Your task to perform on an android device: open app "Booking.com: Hotels and more" (install if not already installed) and enter user name: "misting@outlook.com" and password: "blandly" Image 0: 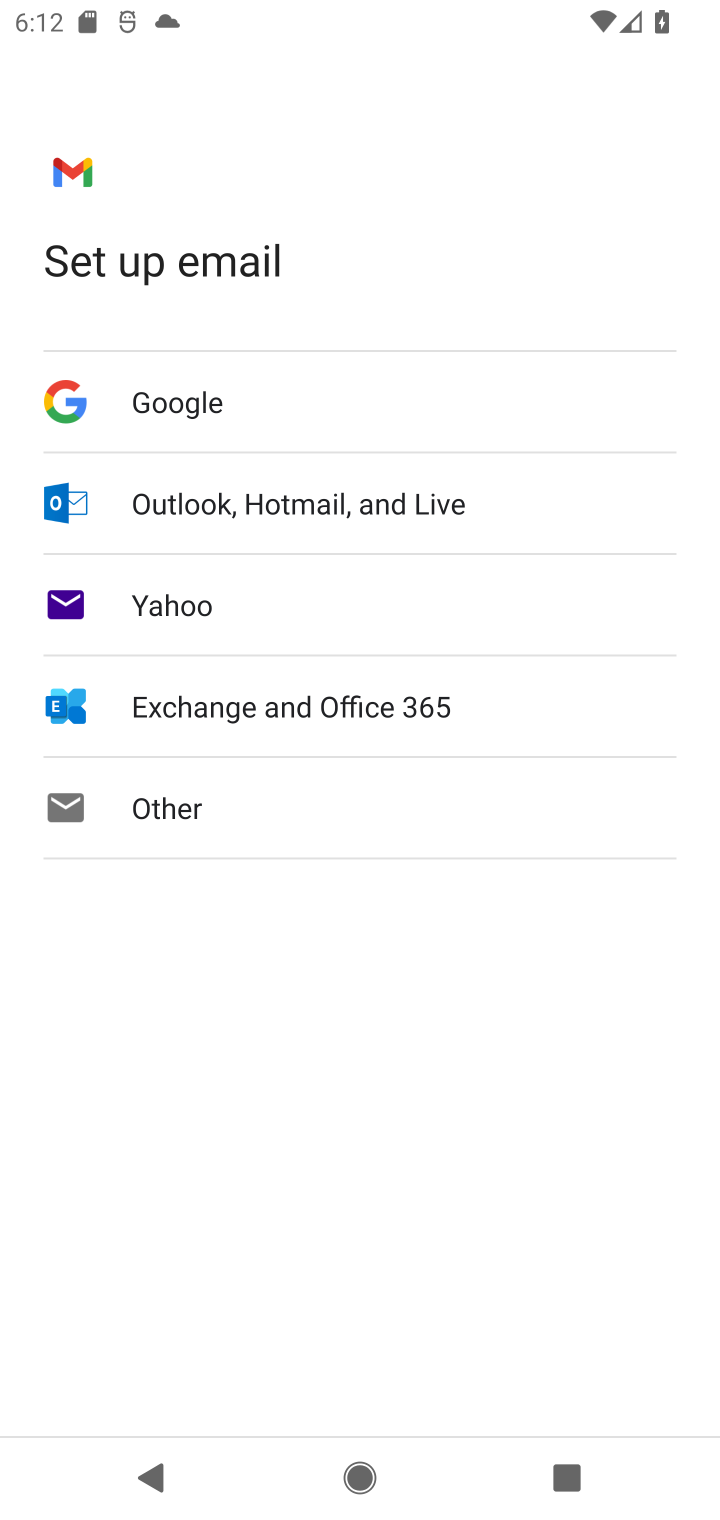
Step 0: press home button
Your task to perform on an android device: open app "Booking.com: Hotels and more" (install if not already installed) and enter user name: "misting@outlook.com" and password: "blandly" Image 1: 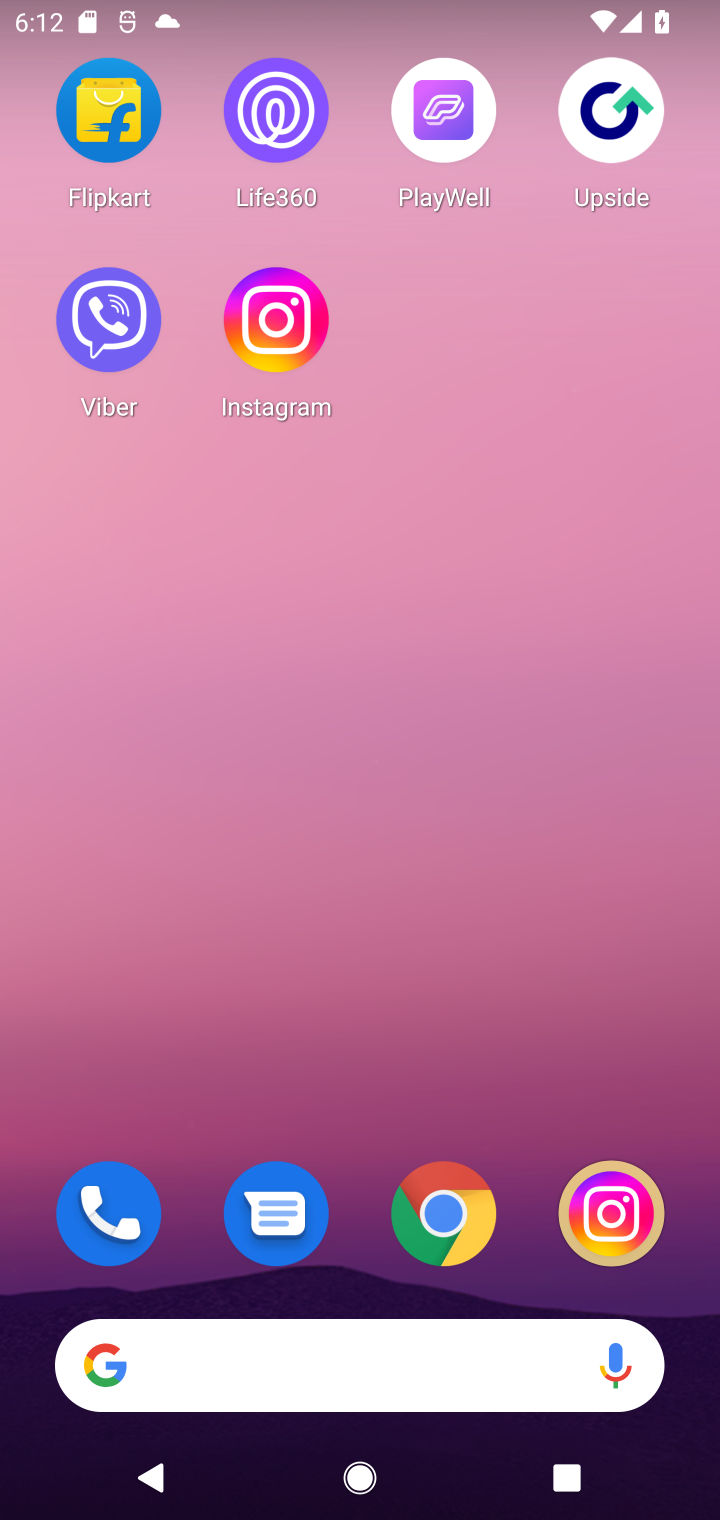
Step 1: drag from (350, 1161) to (286, 157)
Your task to perform on an android device: open app "Booking.com: Hotels and more" (install if not already installed) and enter user name: "misting@outlook.com" and password: "blandly" Image 2: 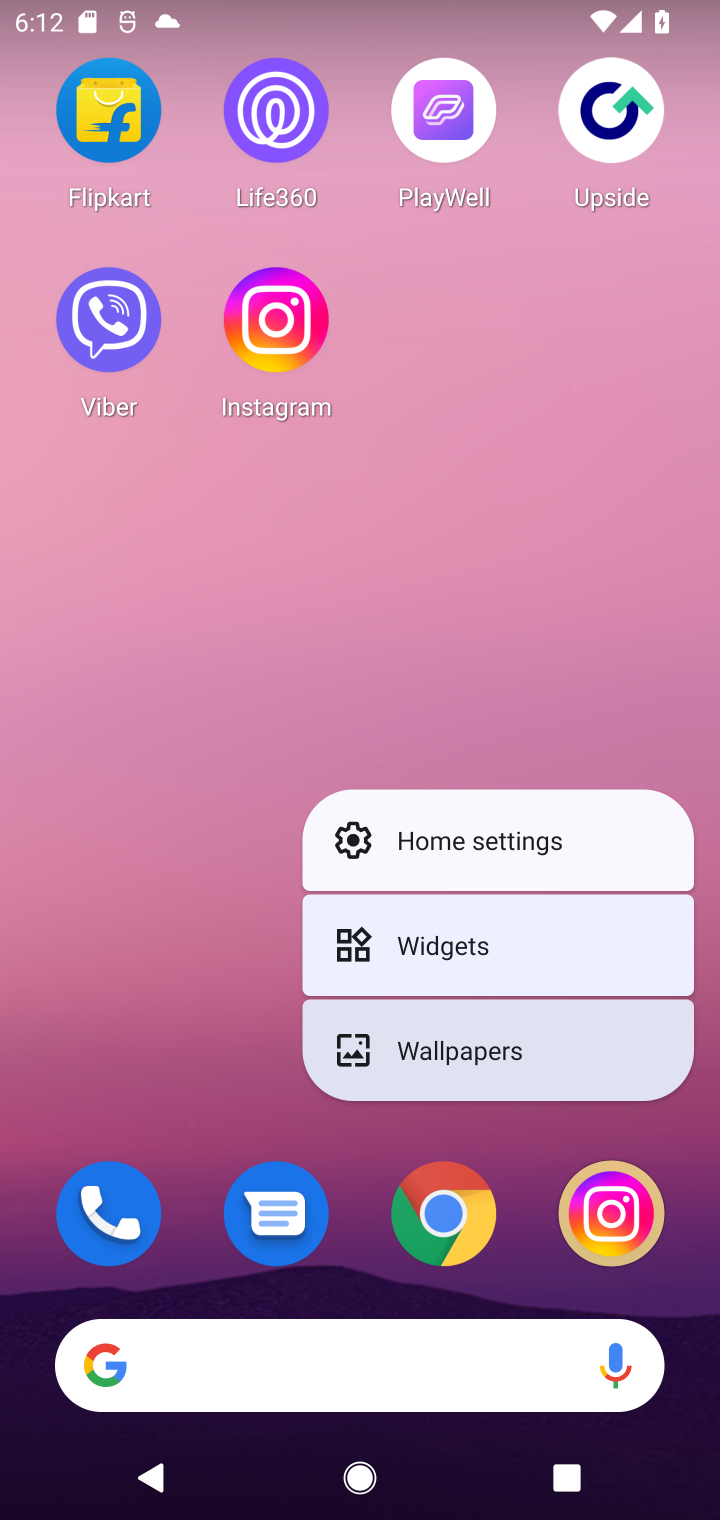
Step 2: click (207, 986)
Your task to perform on an android device: open app "Booking.com: Hotels and more" (install if not already installed) and enter user name: "misting@outlook.com" and password: "blandly" Image 3: 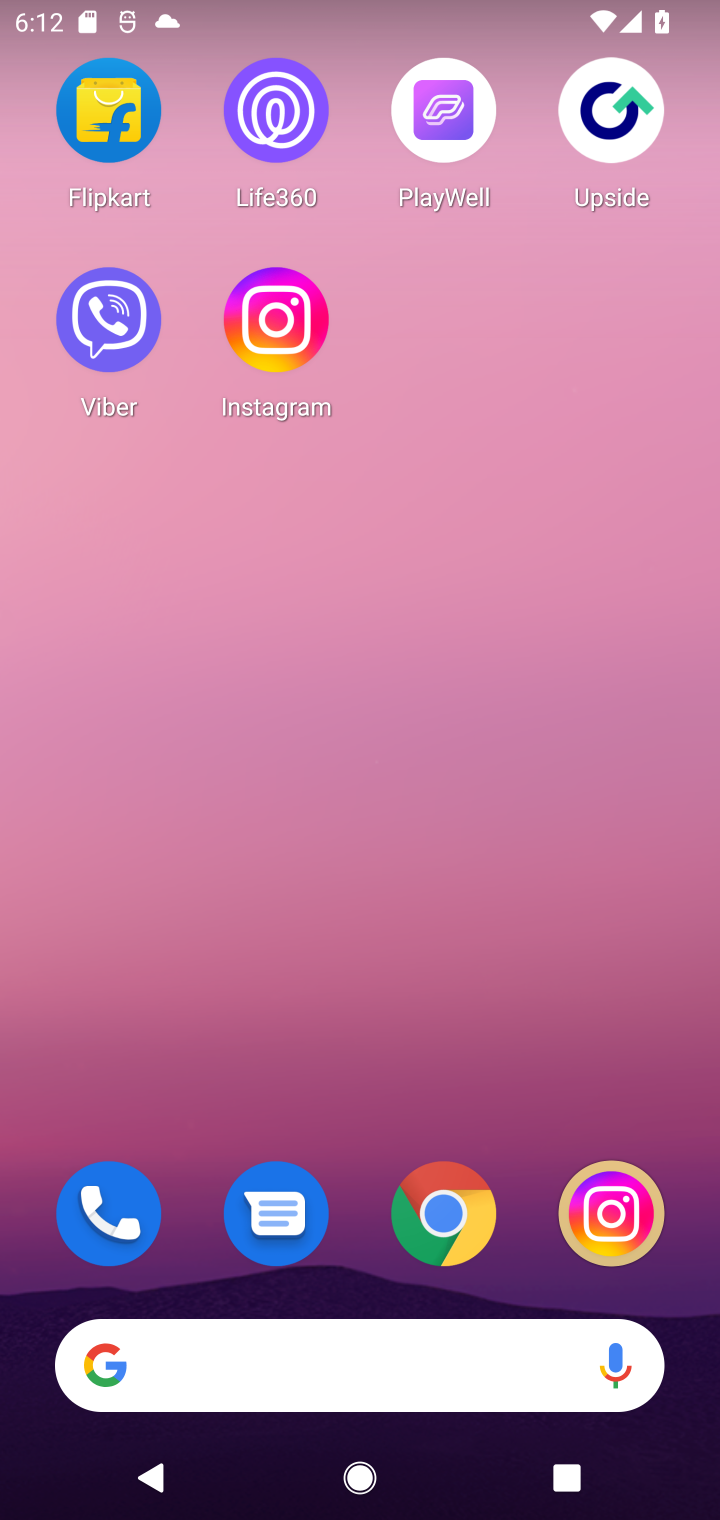
Step 3: drag from (343, 1176) to (313, 245)
Your task to perform on an android device: open app "Booking.com: Hotels and more" (install if not already installed) and enter user name: "misting@outlook.com" and password: "blandly" Image 4: 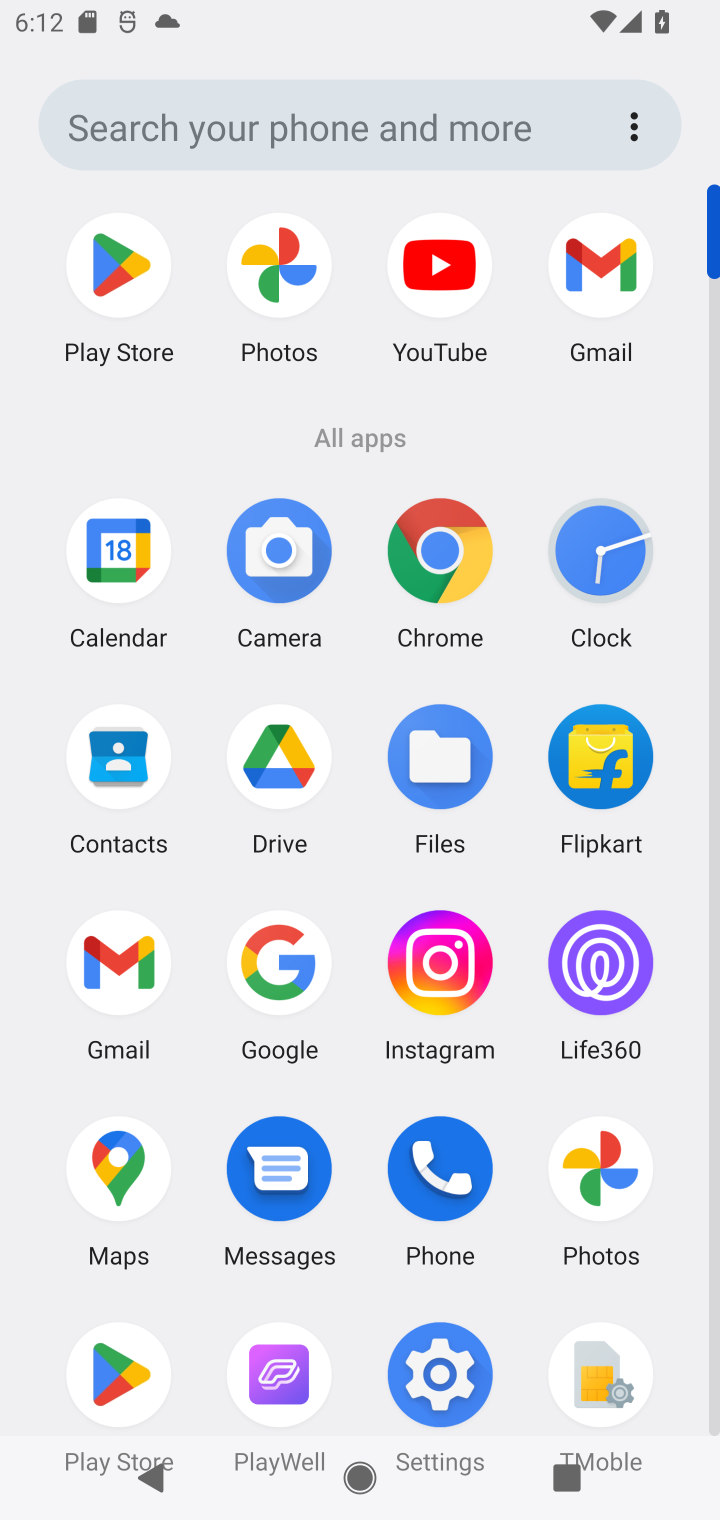
Step 4: click (112, 1370)
Your task to perform on an android device: open app "Booking.com: Hotels and more" (install if not already installed) and enter user name: "misting@outlook.com" and password: "blandly" Image 5: 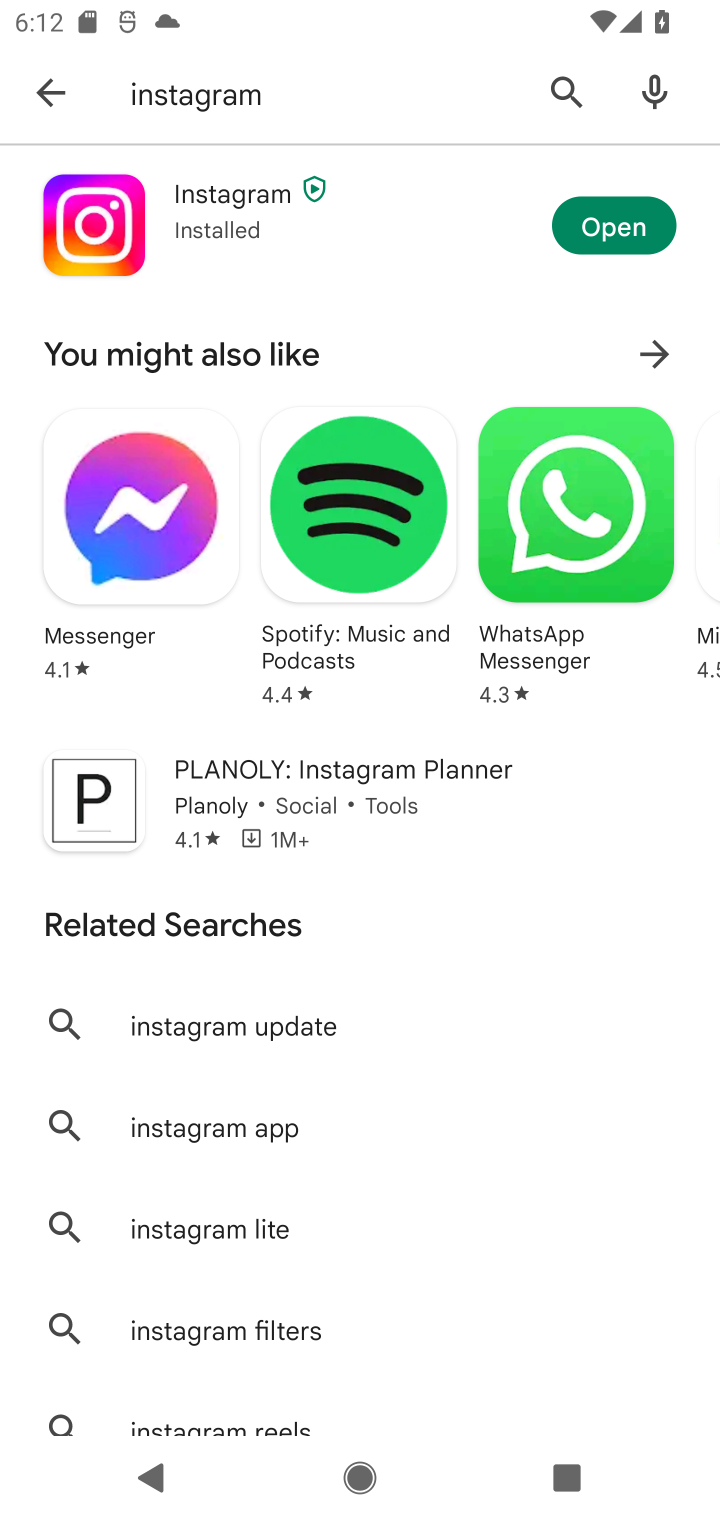
Step 5: click (554, 93)
Your task to perform on an android device: open app "Booking.com: Hotels and more" (install if not already installed) and enter user name: "misting@outlook.com" and password: "blandly" Image 6: 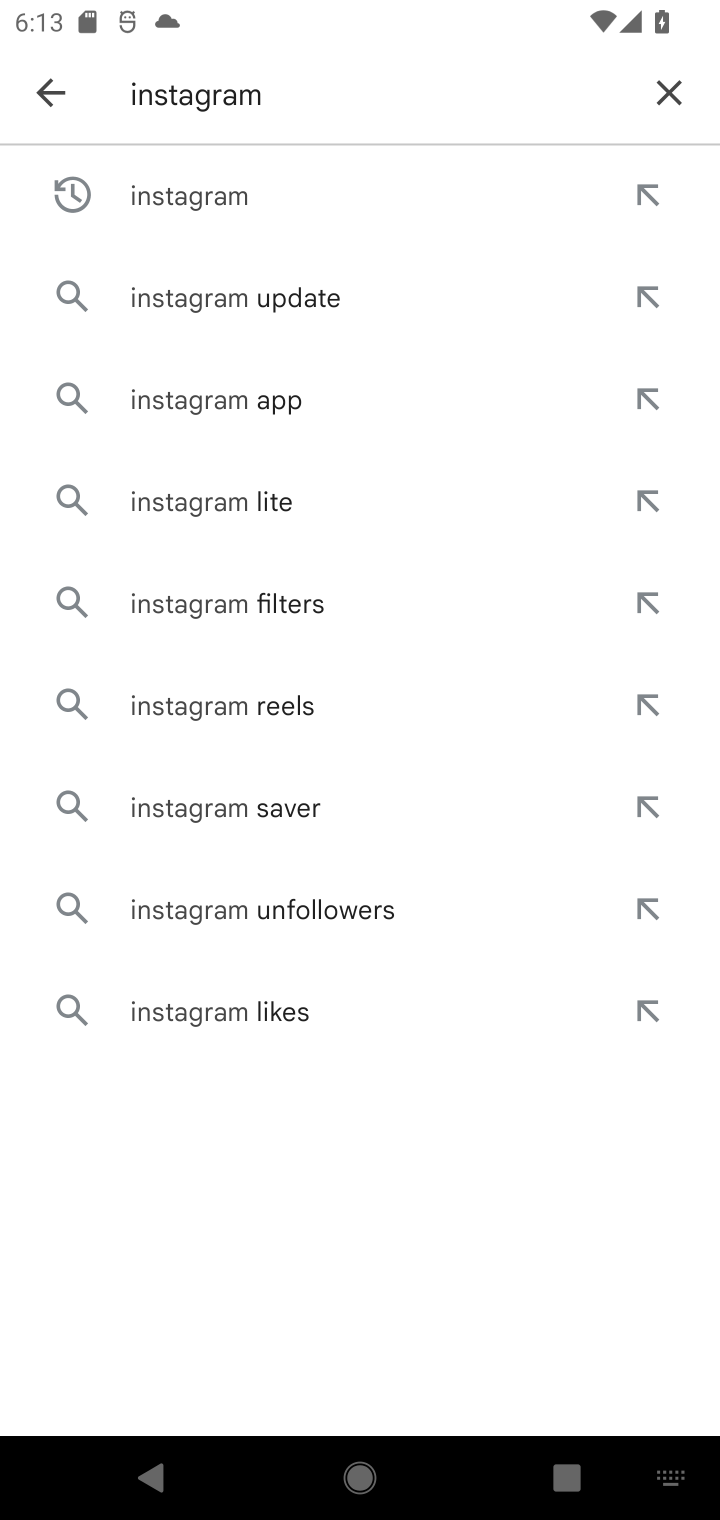
Step 6: click (667, 87)
Your task to perform on an android device: open app "Booking.com: Hotels and more" (install if not already installed) and enter user name: "misting@outlook.com" and password: "blandly" Image 7: 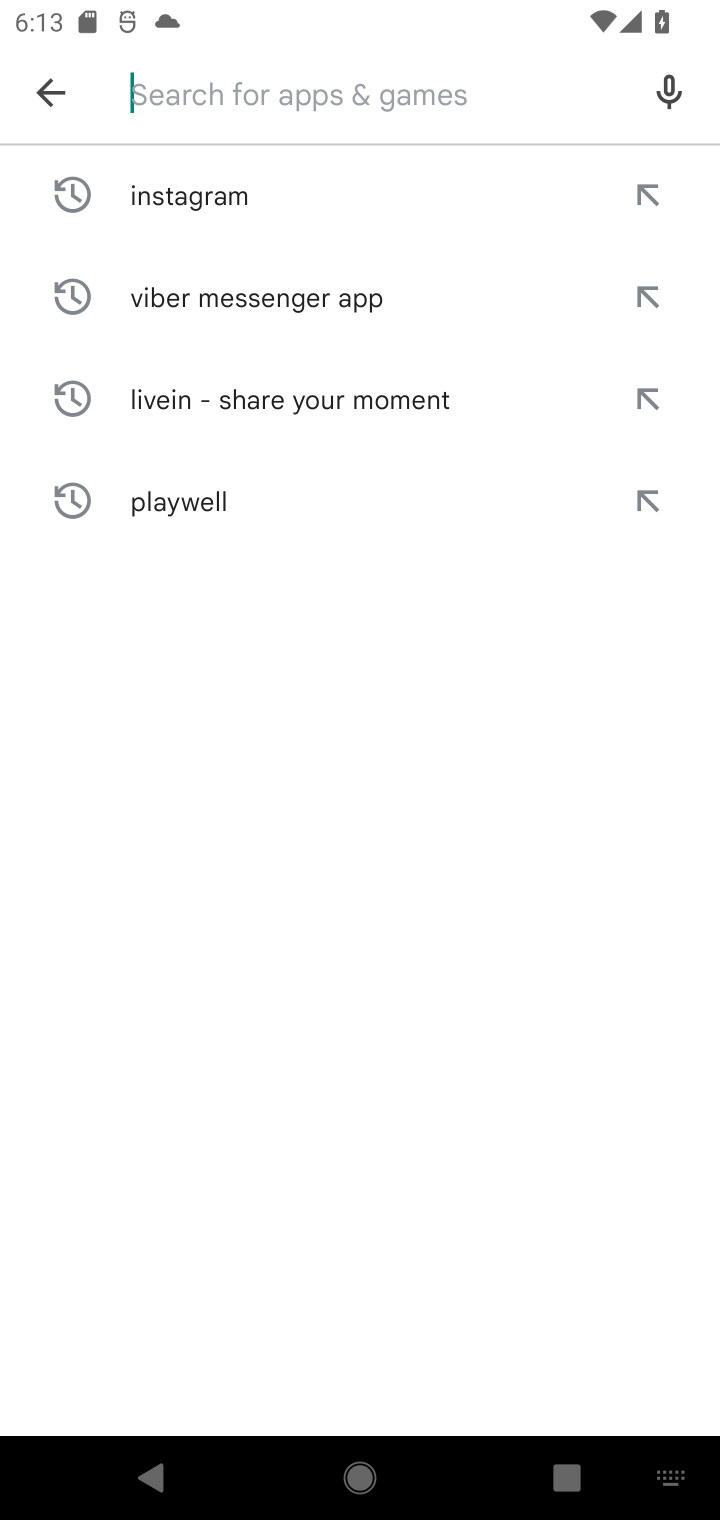
Step 7: type "Booking.com: Hotels and more"
Your task to perform on an android device: open app "Booking.com: Hotels and more" (install if not already installed) and enter user name: "misting@outlook.com" and password: "blandly" Image 8: 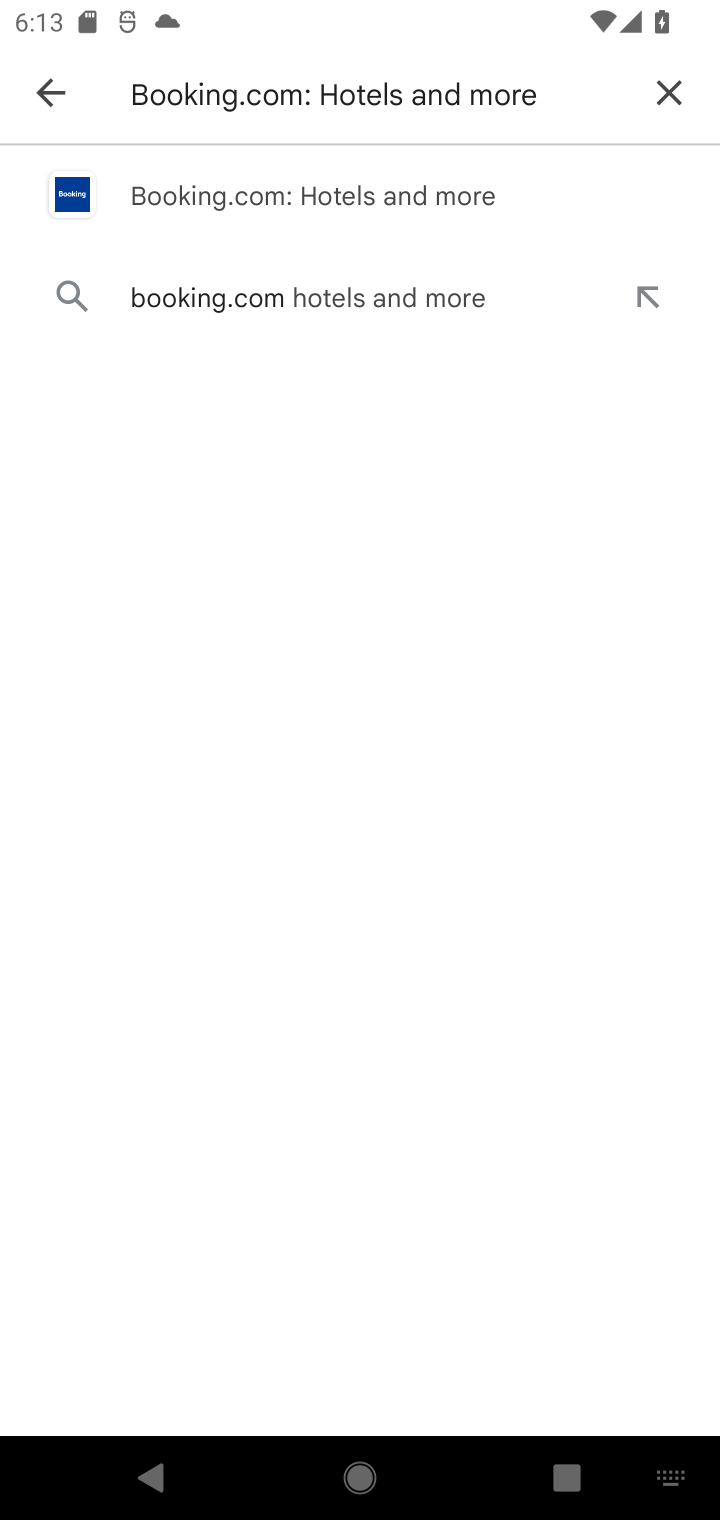
Step 8: click (158, 190)
Your task to perform on an android device: open app "Booking.com: Hotels and more" (install if not already installed) and enter user name: "misting@outlook.com" and password: "blandly" Image 9: 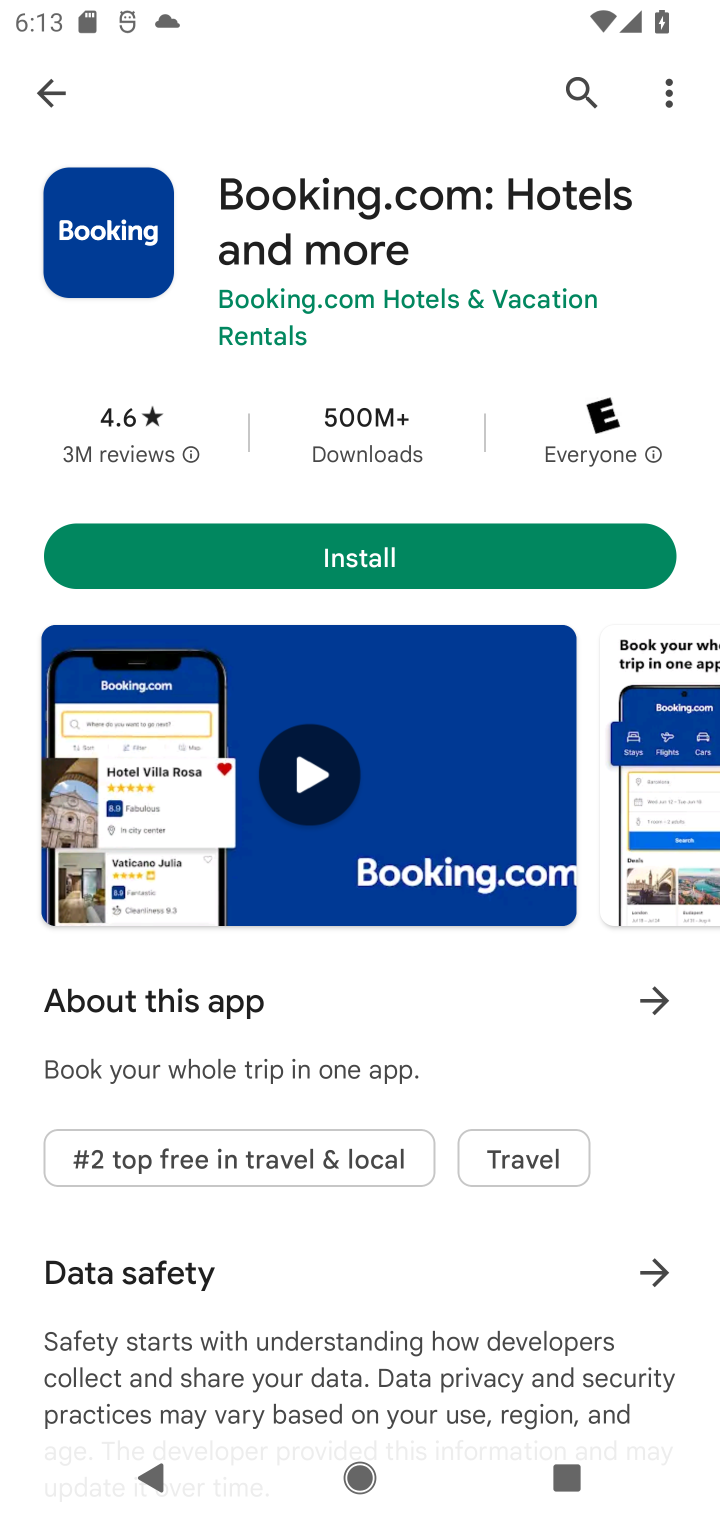
Step 9: click (346, 556)
Your task to perform on an android device: open app "Booking.com: Hotels and more" (install if not already installed) and enter user name: "misting@outlook.com" and password: "blandly" Image 10: 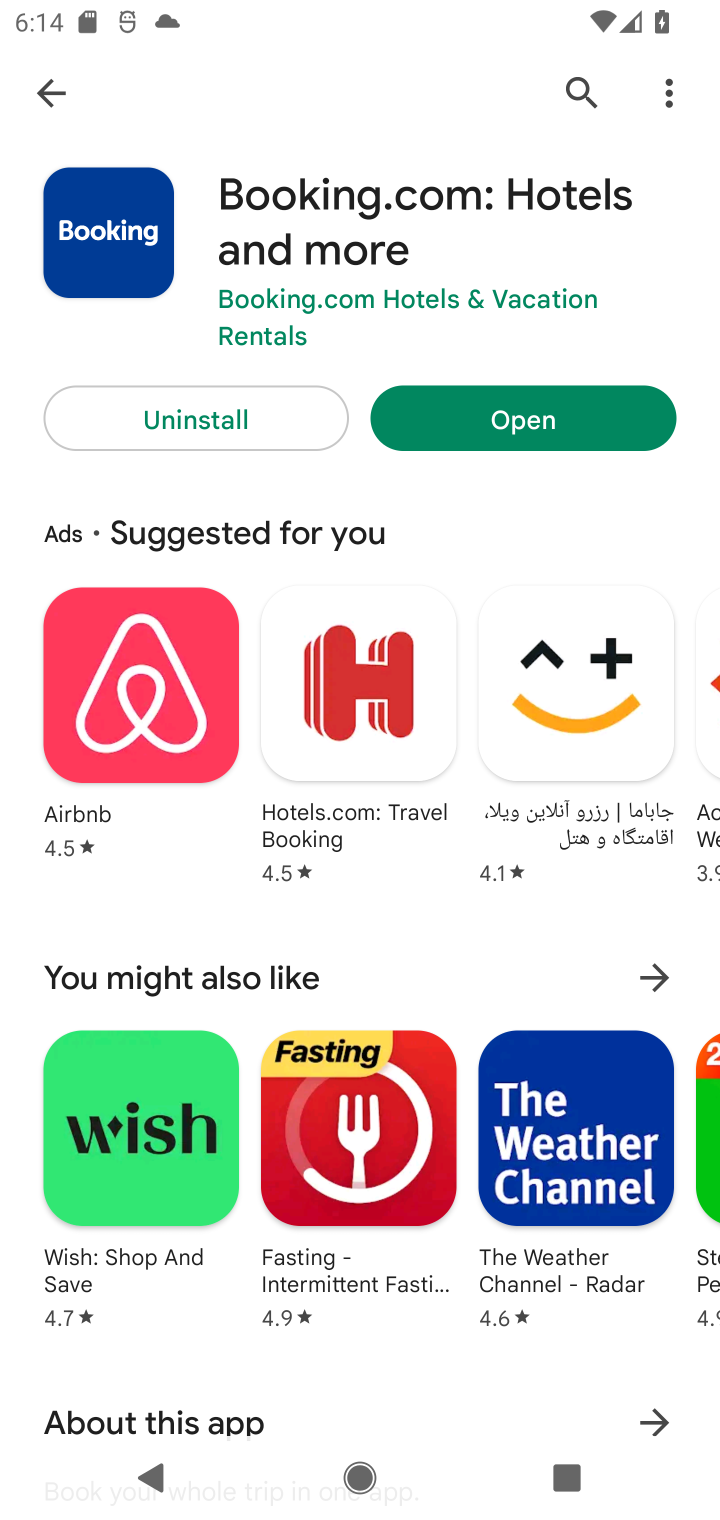
Step 10: click (528, 423)
Your task to perform on an android device: open app "Booking.com: Hotels and more" (install if not already installed) and enter user name: "misting@outlook.com" and password: "blandly" Image 11: 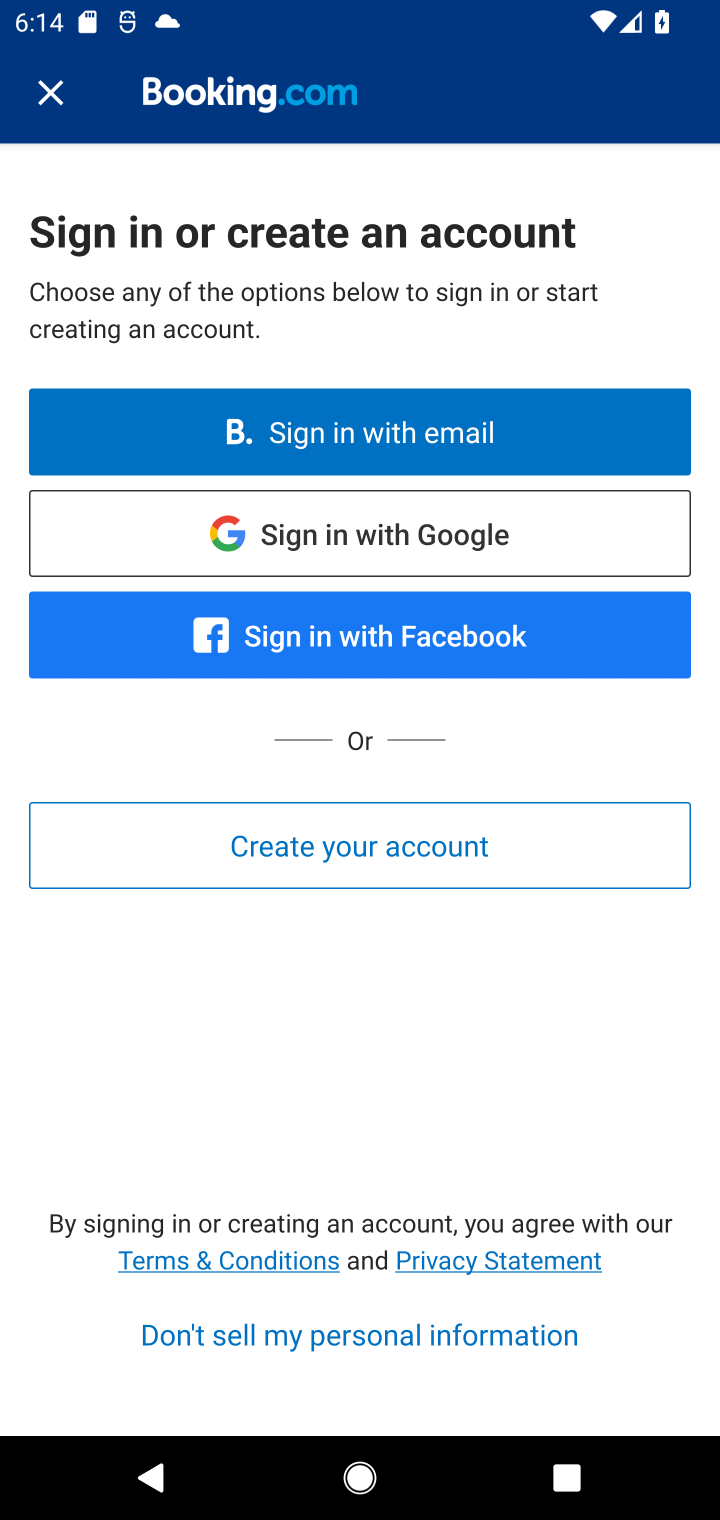
Step 11: click (342, 435)
Your task to perform on an android device: open app "Booking.com: Hotels and more" (install if not already installed) and enter user name: "misting@outlook.com" and password: "blandly" Image 12: 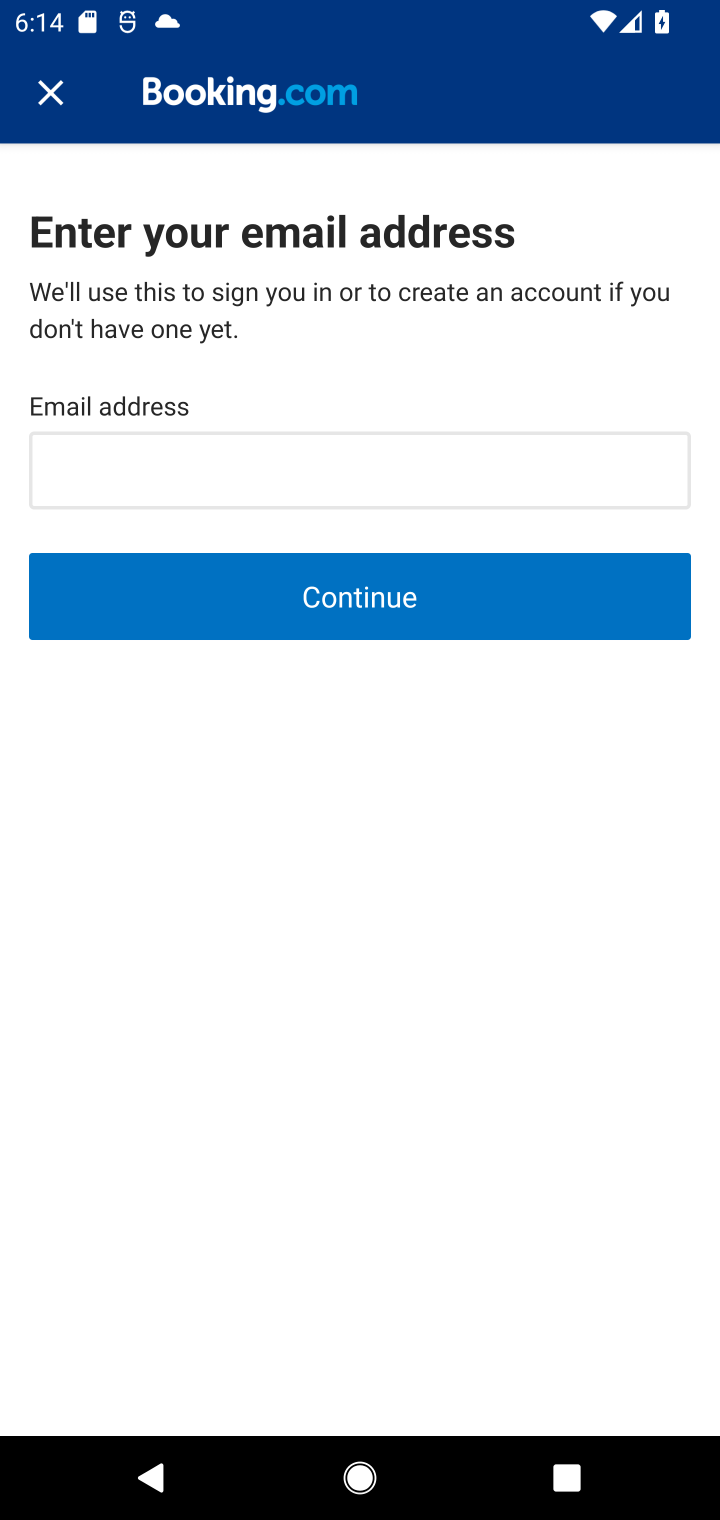
Step 12: click (82, 474)
Your task to perform on an android device: open app "Booking.com: Hotels and more" (install if not already installed) and enter user name: "misting@outlook.com" and password: "blandly" Image 13: 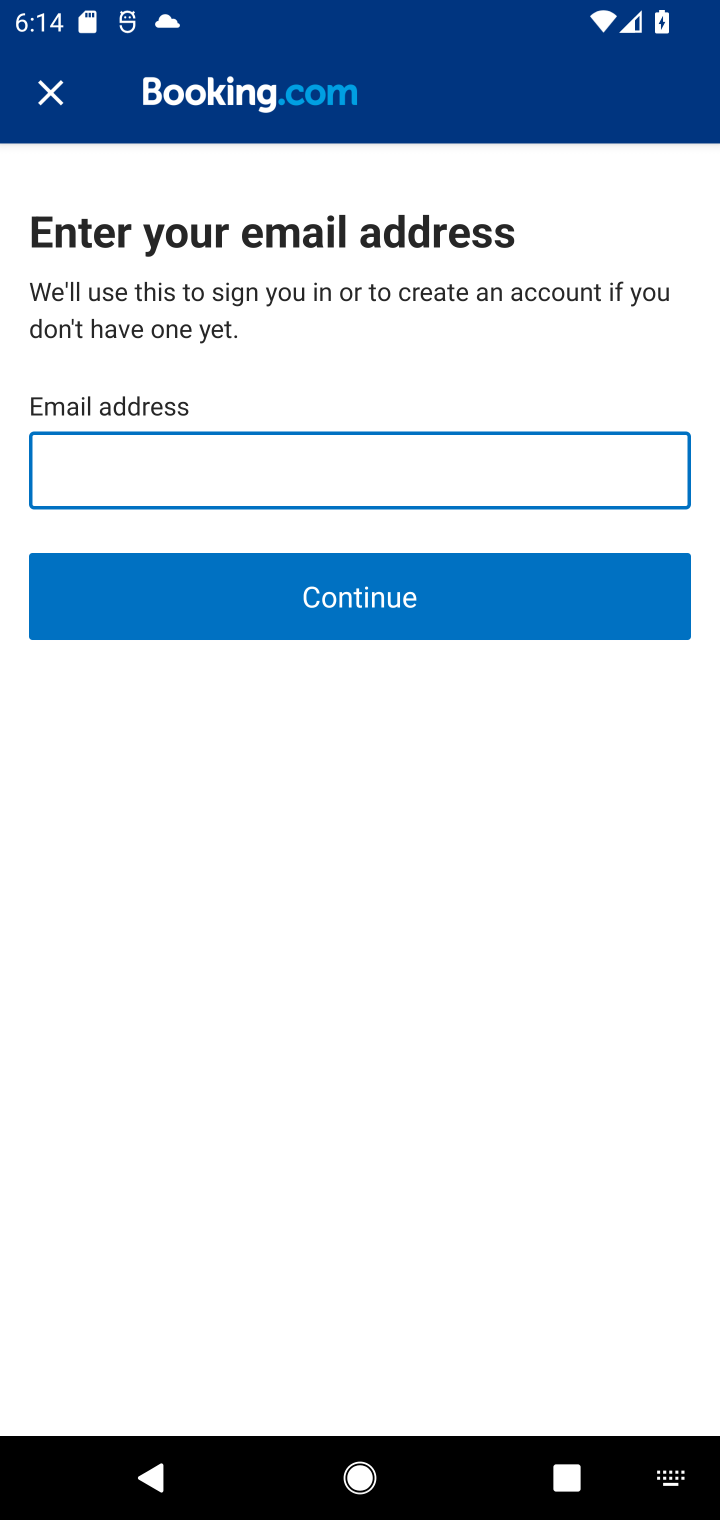
Step 13: type "misting@outlook.com"
Your task to perform on an android device: open app "Booking.com: Hotels and more" (install if not already installed) and enter user name: "misting@outlook.com" and password: "blandly" Image 14: 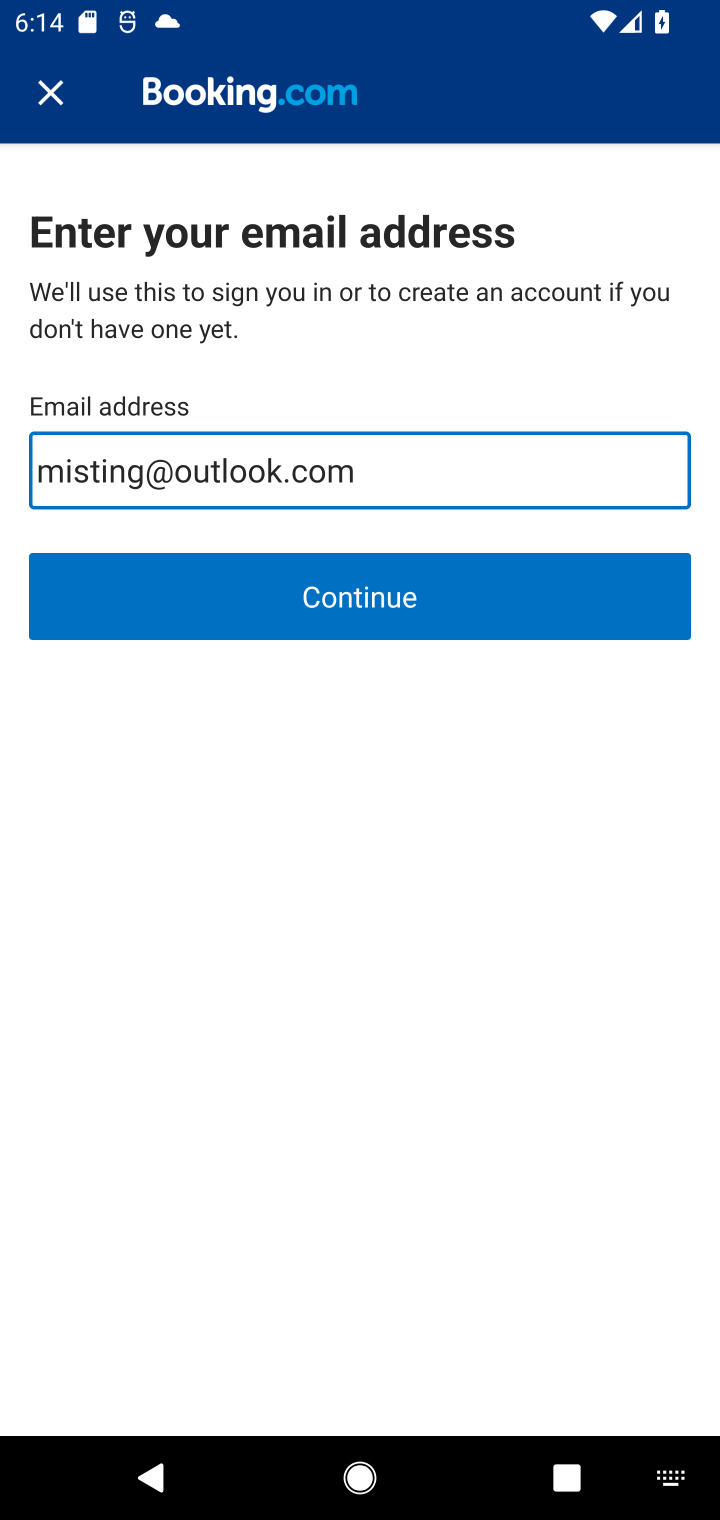
Step 14: click (360, 603)
Your task to perform on an android device: open app "Booking.com: Hotels and more" (install if not already installed) and enter user name: "misting@outlook.com" and password: "blandly" Image 15: 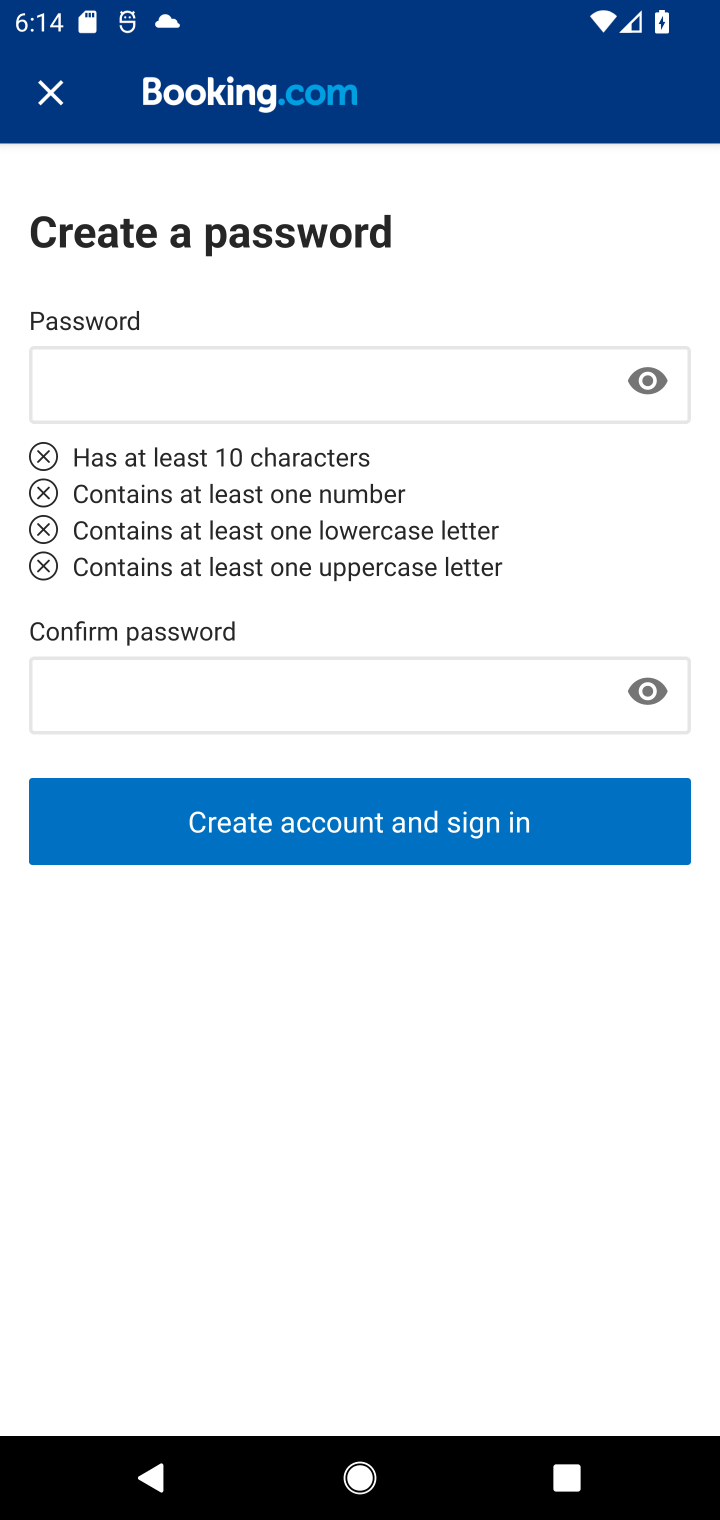
Step 15: click (132, 375)
Your task to perform on an android device: open app "Booking.com: Hotels and more" (install if not already installed) and enter user name: "misting@outlook.com" and password: "blandly" Image 16: 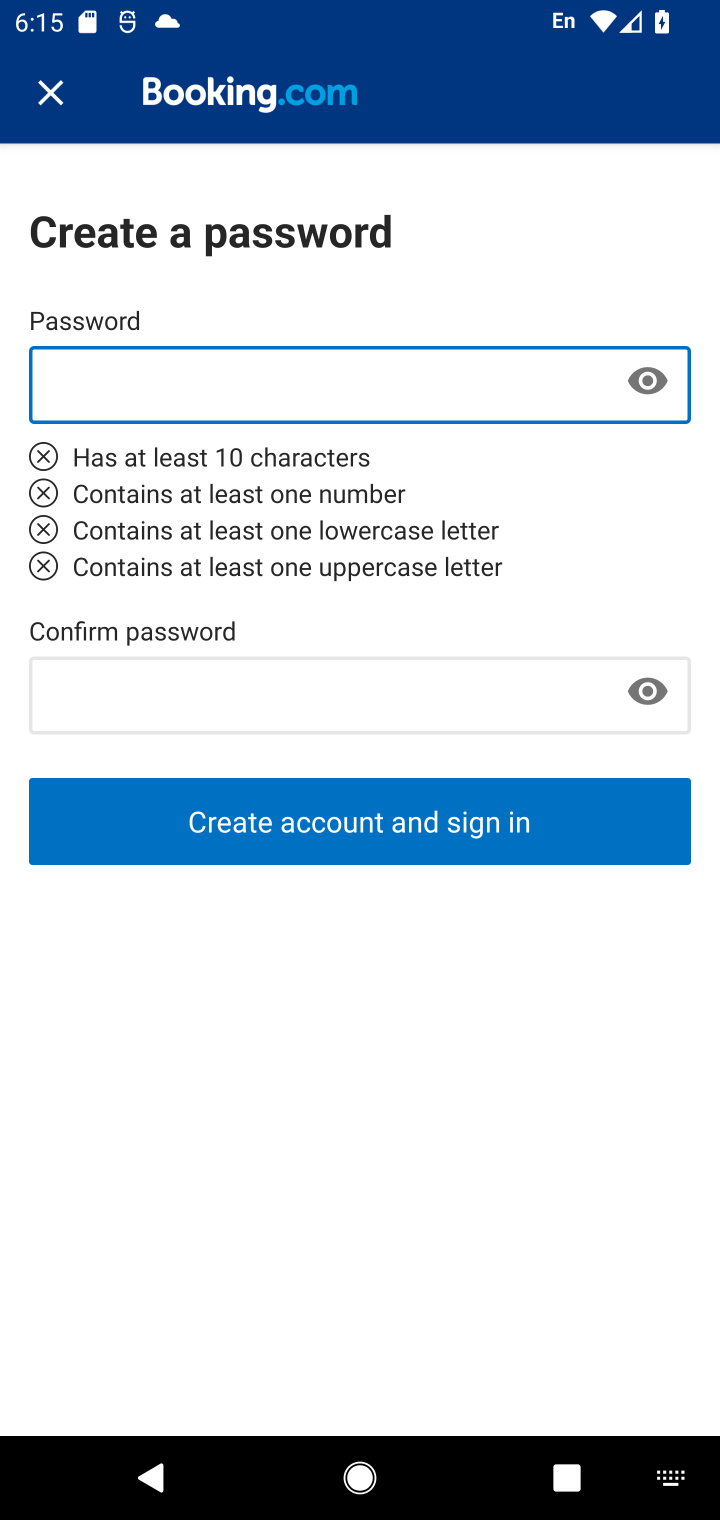
Step 16: type "blandly"
Your task to perform on an android device: open app "Booking.com: Hotels and more" (install if not already installed) and enter user name: "misting@outlook.com" and password: "blandly" Image 17: 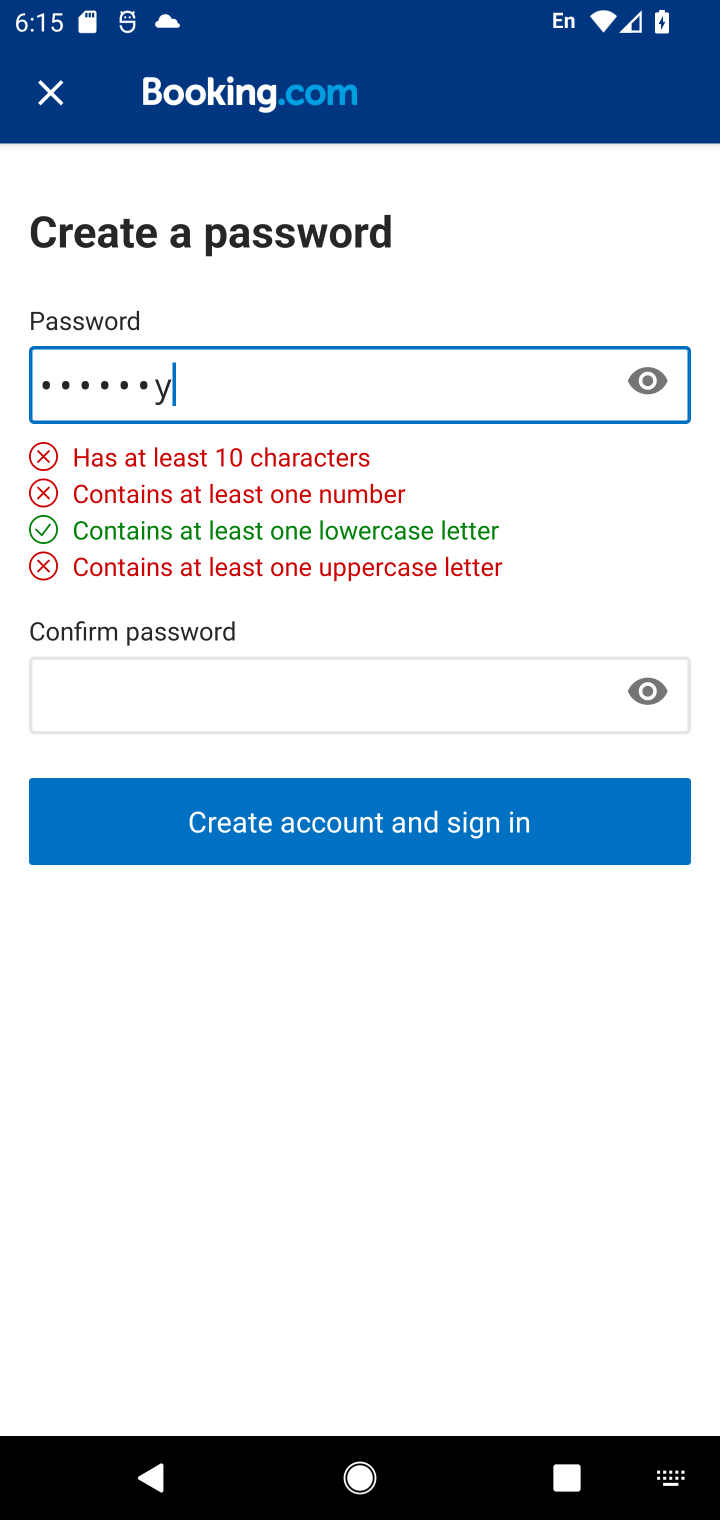
Step 17: click (346, 694)
Your task to perform on an android device: open app "Booking.com: Hotels and more" (install if not already installed) and enter user name: "misting@outlook.com" and password: "blandly" Image 18: 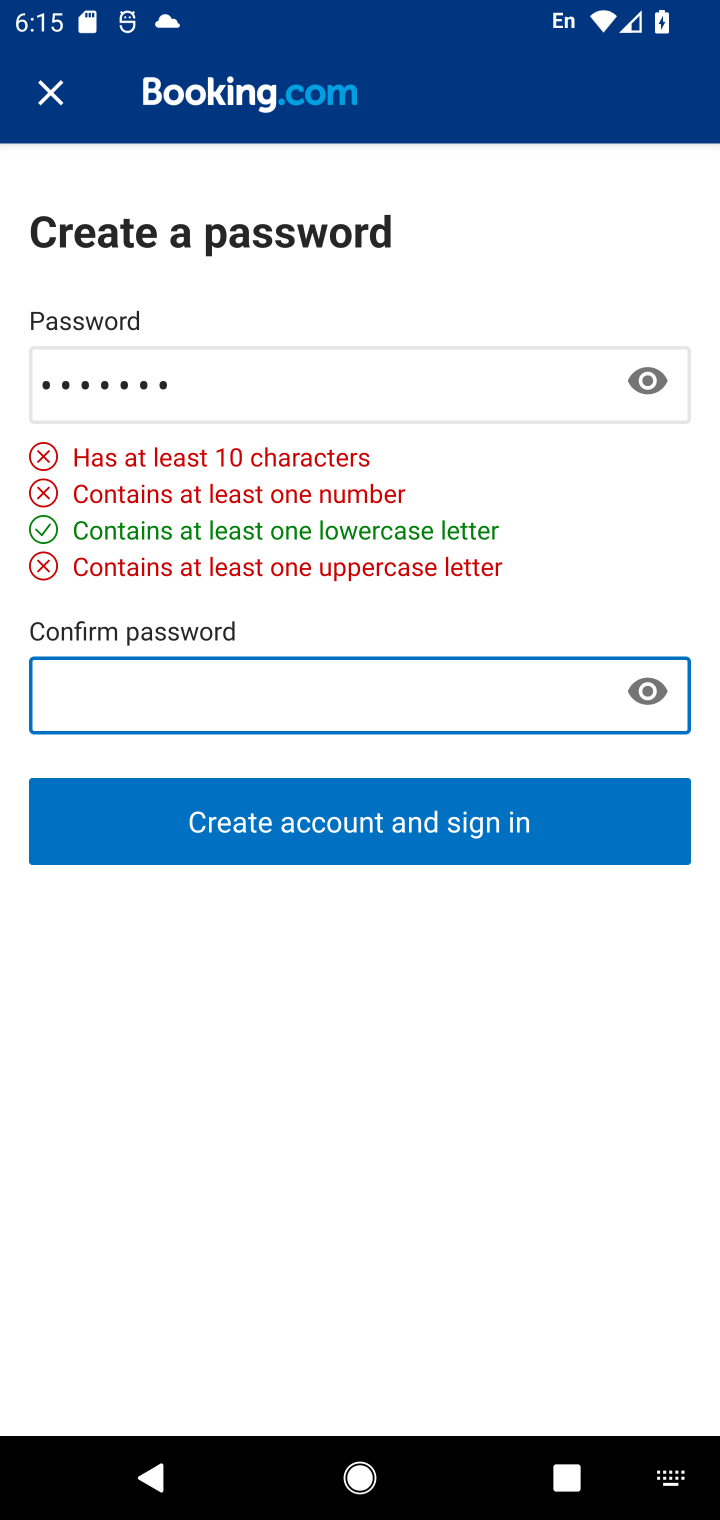
Step 18: type "blandly"
Your task to perform on an android device: open app "Booking.com: Hotels and more" (install if not already installed) and enter user name: "misting@outlook.com" and password: "blandly" Image 19: 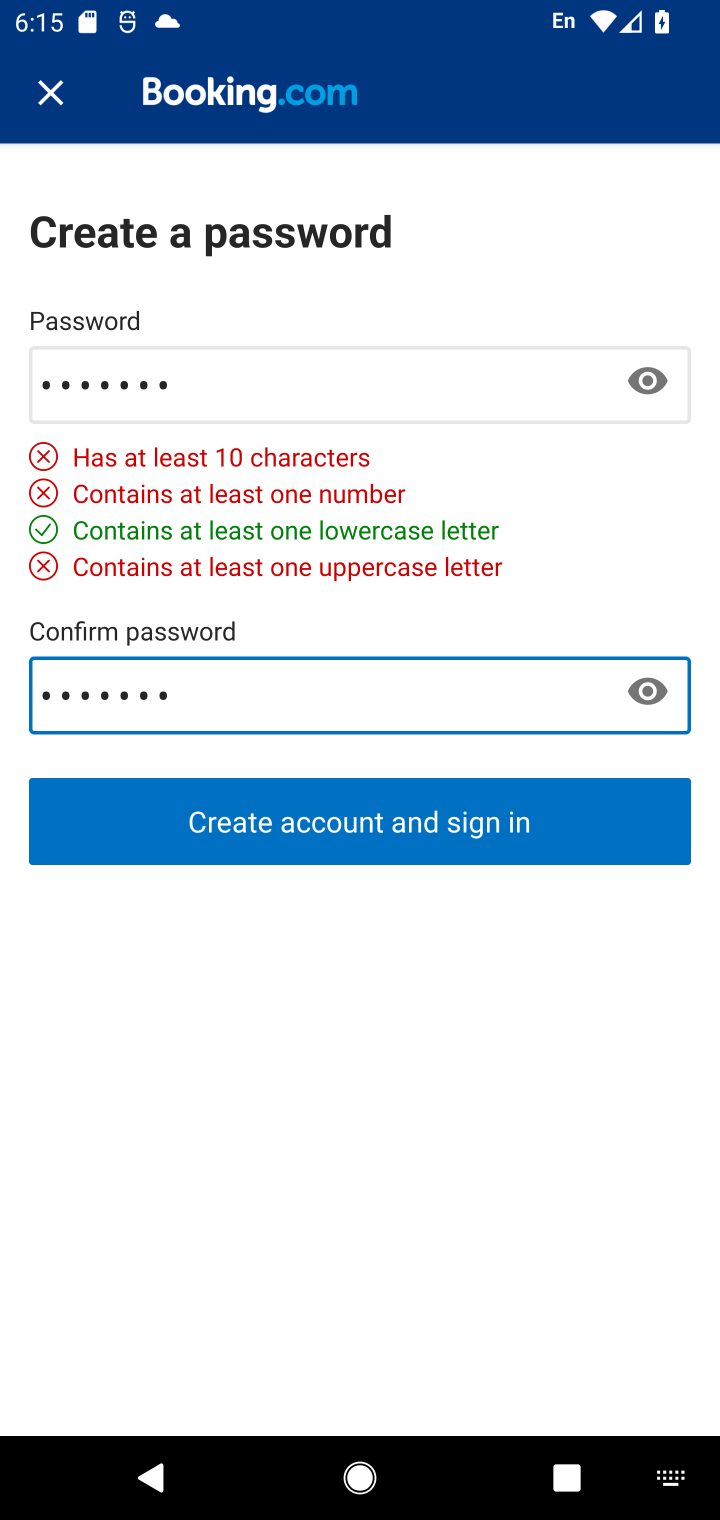
Step 19: task complete